Your task to perform on an android device: turn on javascript in the chrome app Image 0: 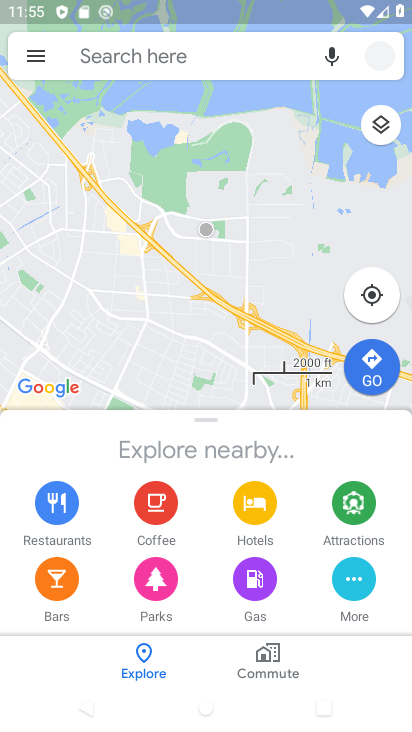
Step 0: press home button
Your task to perform on an android device: turn on javascript in the chrome app Image 1: 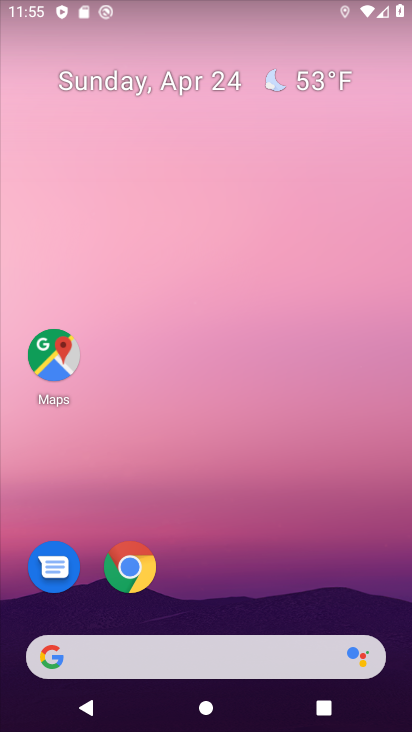
Step 1: click (149, 575)
Your task to perform on an android device: turn on javascript in the chrome app Image 2: 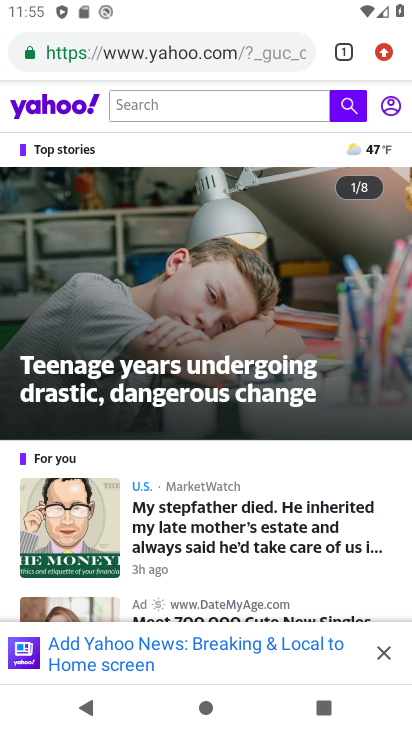
Step 2: click (386, 47)
Your task to perform on an android device: turn on javascript in the chrome app Image 3: 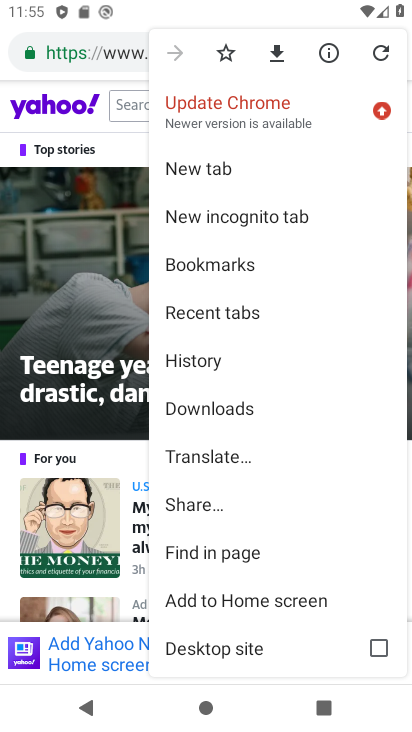
Step 3: drag from (279, 492) to (269, 228)
Your task to perform on an android device: turn on javascript in the chrome app Image 4: 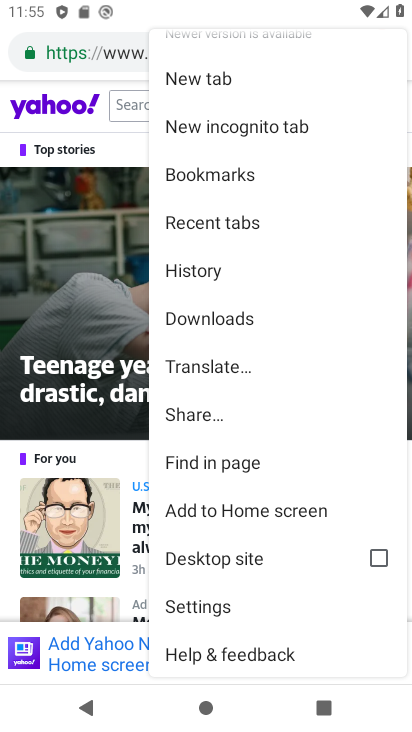
Step 4: click (225, 599)
Your task to perform on an android device: turn on javascript in the chrome app Image 5: 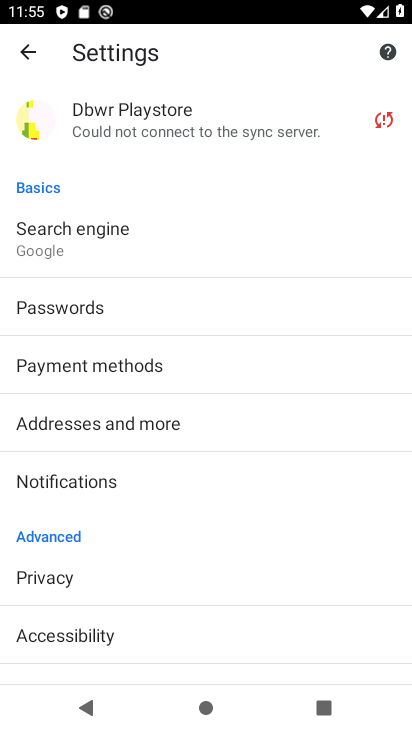
Step 5: drag from (236, 597) to (249, 366)
Your task to perform on an android device: turn on javascript in the chrome app Image 6: 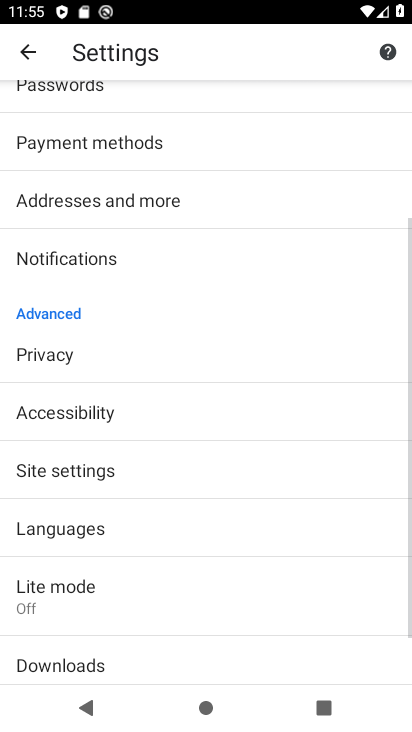
Step 6: click (218, 472)
Your task to perform on an android device: turn on javascript in the chrome app Image 7: 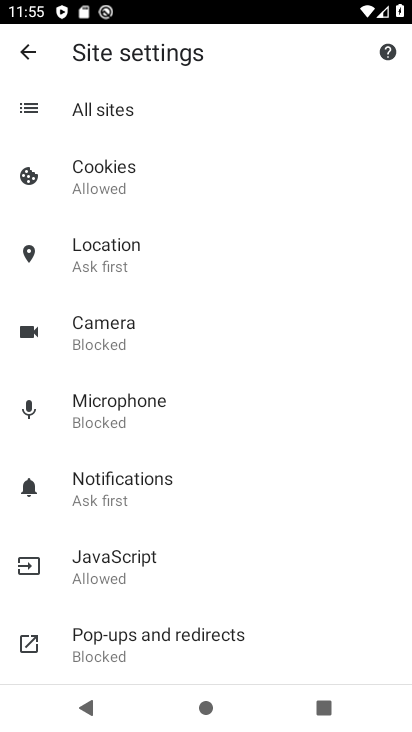
Step 7: click (220, 556)
Your task to perform on an android device: turn on javascript in the chrome app Image 8: 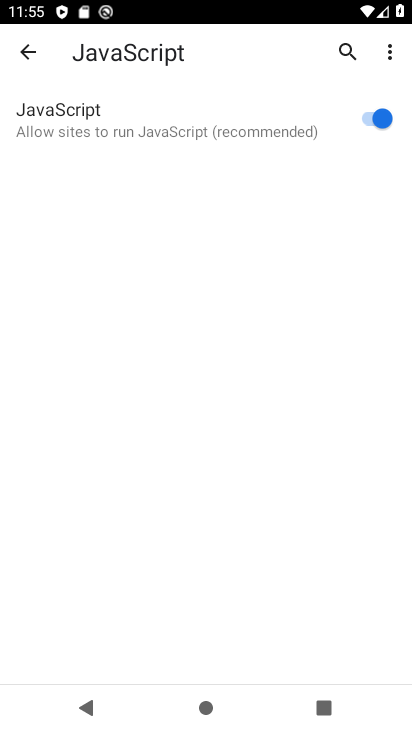
Step 8: task complete